Your task to perform on an android device: Check the news Image 0: 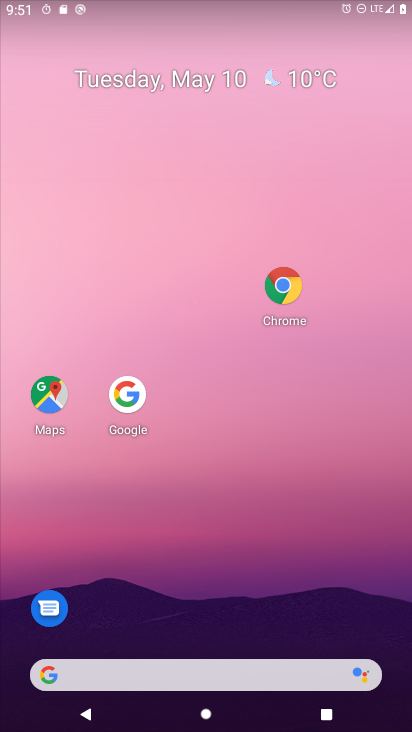
Step 0: click (51, 680)
Your task to perform on an android device: Check the news Image 1: 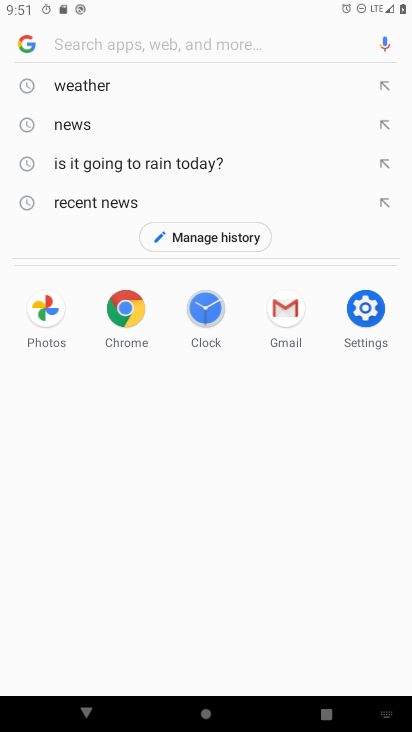
Step 1: click (72, 124)
Your task to perform on an android device: Check the news Image 2: 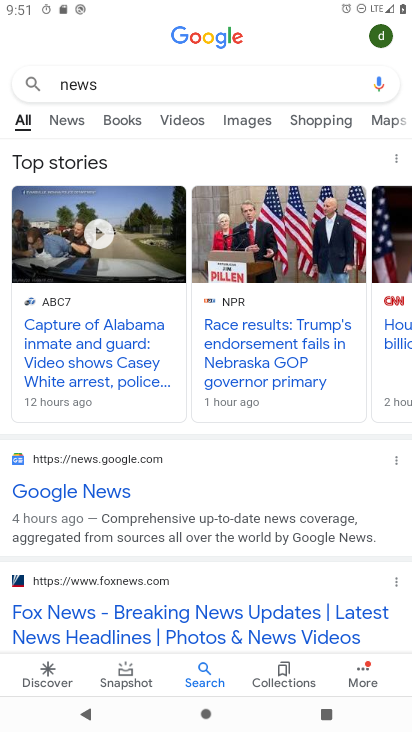
Step 2: click (71, 124)
Your task to perform on an android device: Check the news Image 3: 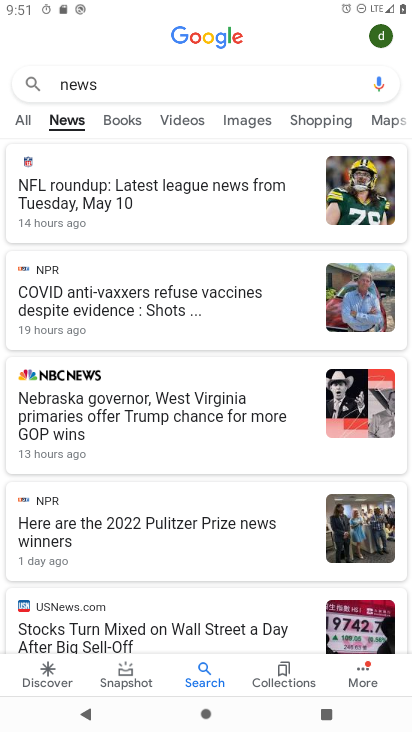
Step 3: task complete